Your task to perform on an android device: Is it going to rain today? Image 0: 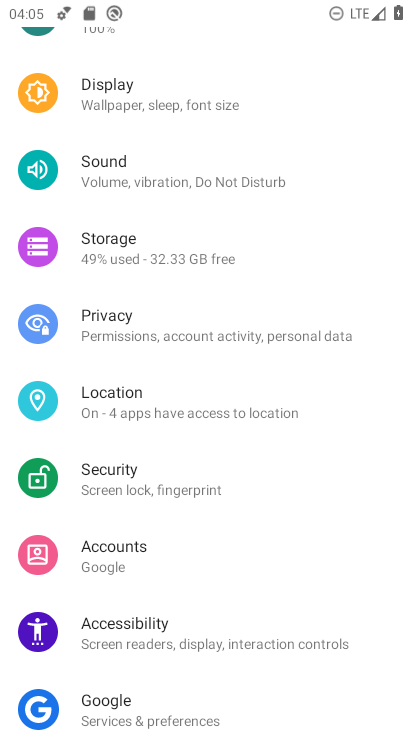
Step 0: press home button
Your task to perform on an android device: Is it going to rain today? Image 1: 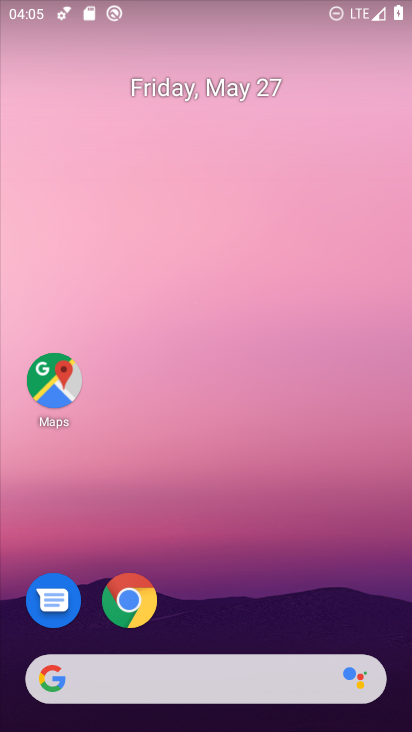
Step 1: drag from (223, 725) to (225, 176)
Your task to perform on an android device: Is it going to rain today? Image 2: 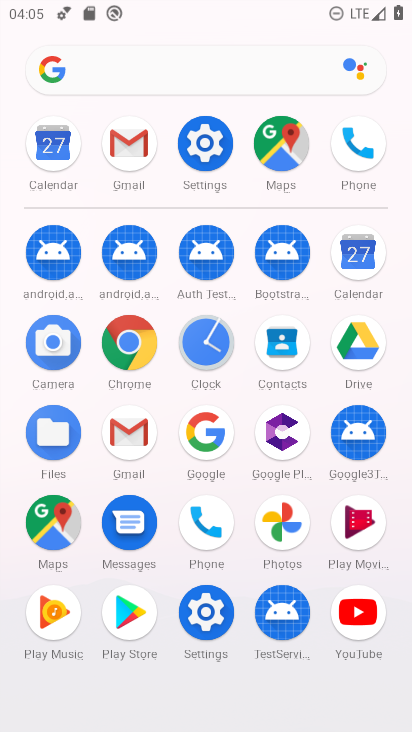
Step 2: click (209, 428)
Your task to perform on an android device: Is it going to rain today? Image 3: 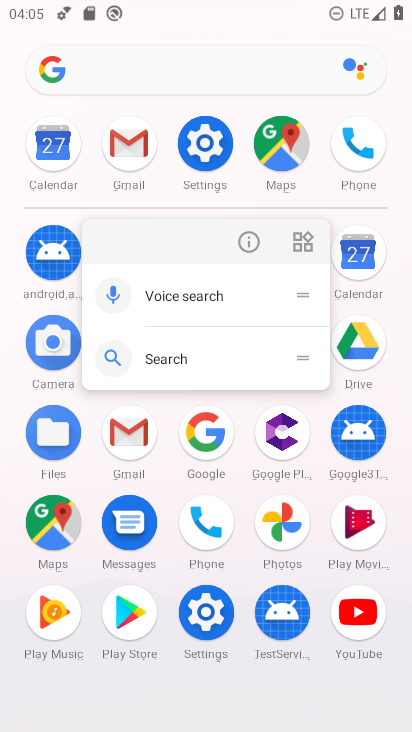
Step 3: click (209, 428)
Your task to perform on an android device: Is it going to rain today? Image 4: 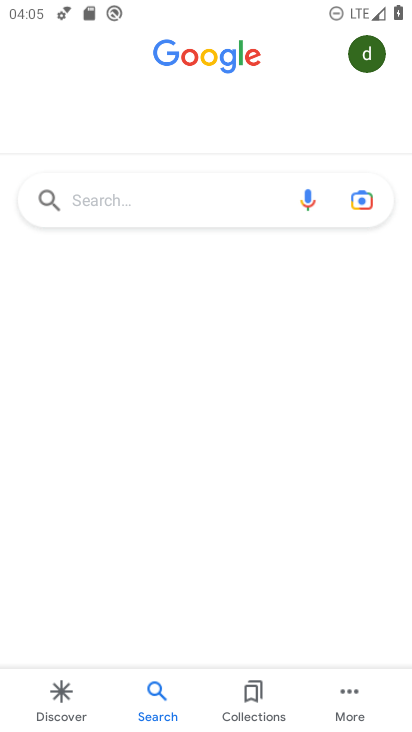
Step 4: click (160, 206)
Your task to perform on an android device: Is it going to rain today? Image 5: 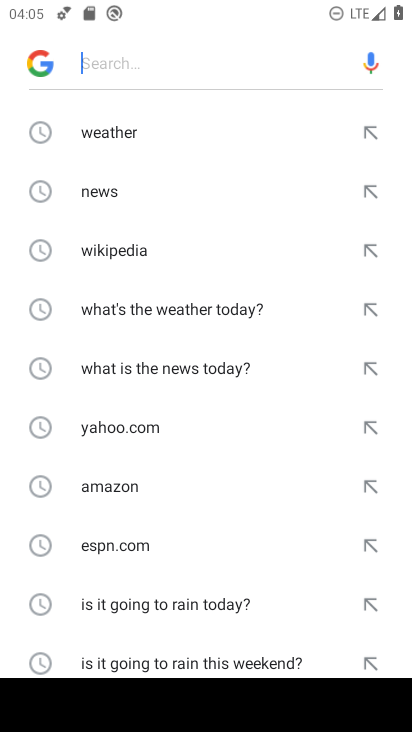
Step 5: click (120, 131)
Your task to perform on an android device: Is it going to rain today? Image 6: 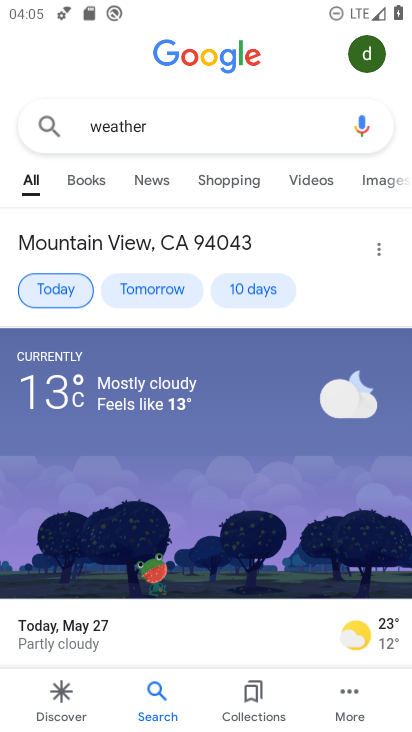
Step 6: click (47, 286)
Your task to perform on an android device: Is it going to rain today? Image 7: 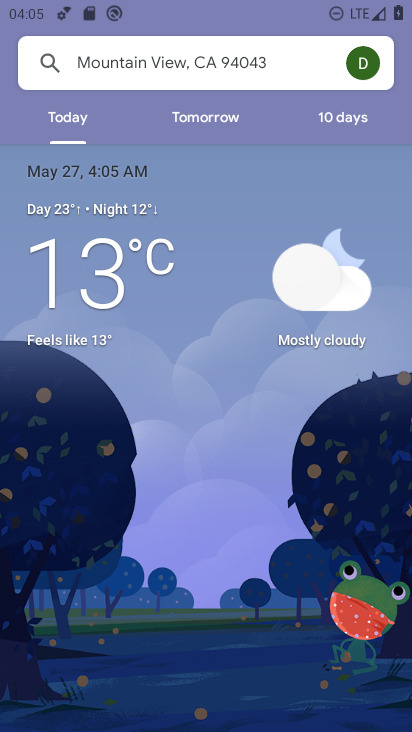
Step 7: task complete